Your task to perform on an android device: Who is the prime minister of the United Kingdom? Image 0: 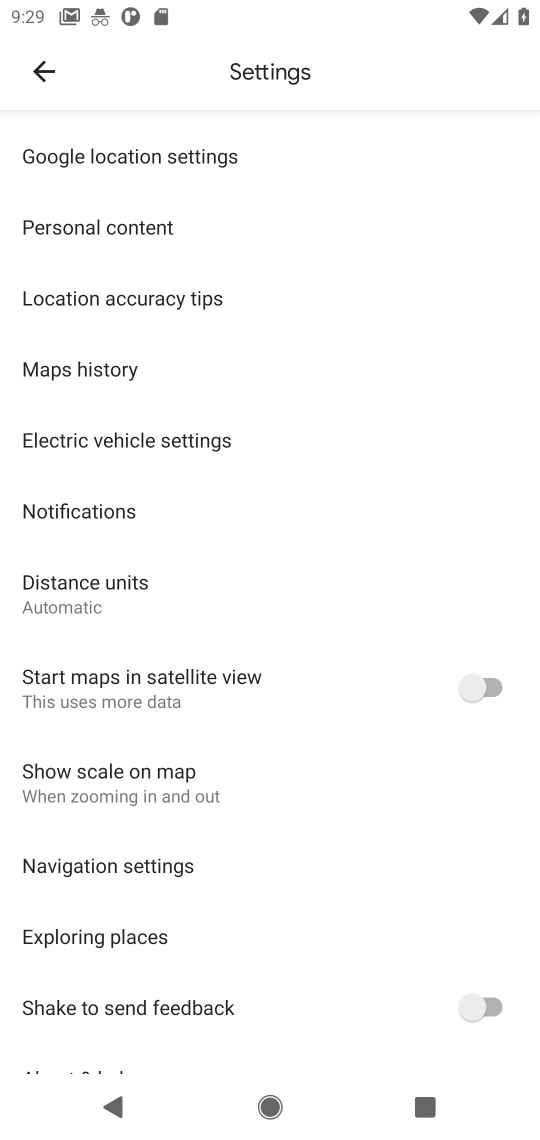
Step 0: press home button
Your task to perform on an android device: Who is the prime minister of the United Kingdom? Image 1: 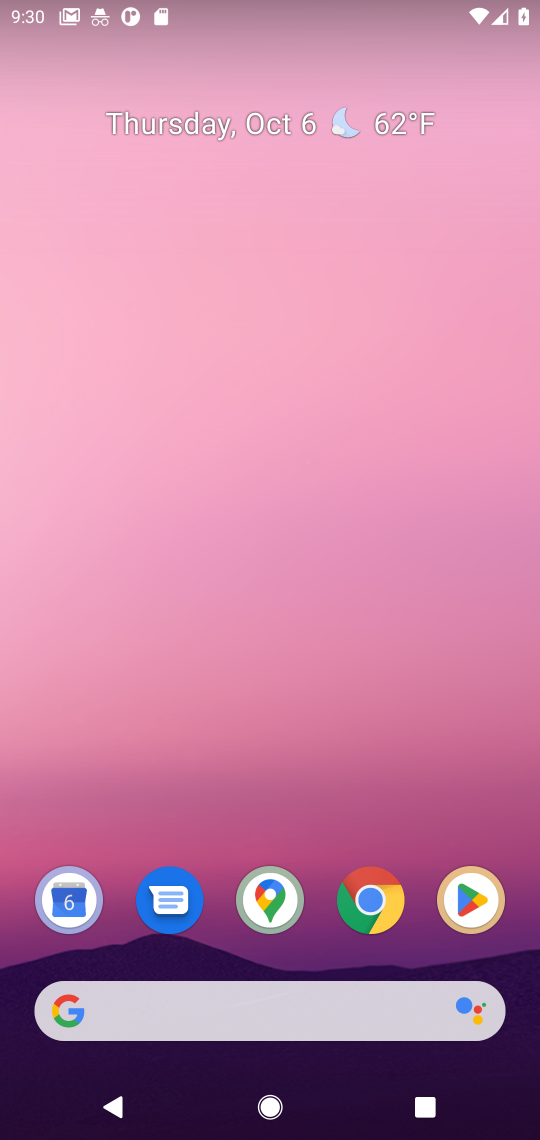
Step 1: click (294, 1007)
Your task to perform on an android device: Who is the prime minister of the United Kingdom? Image 2: 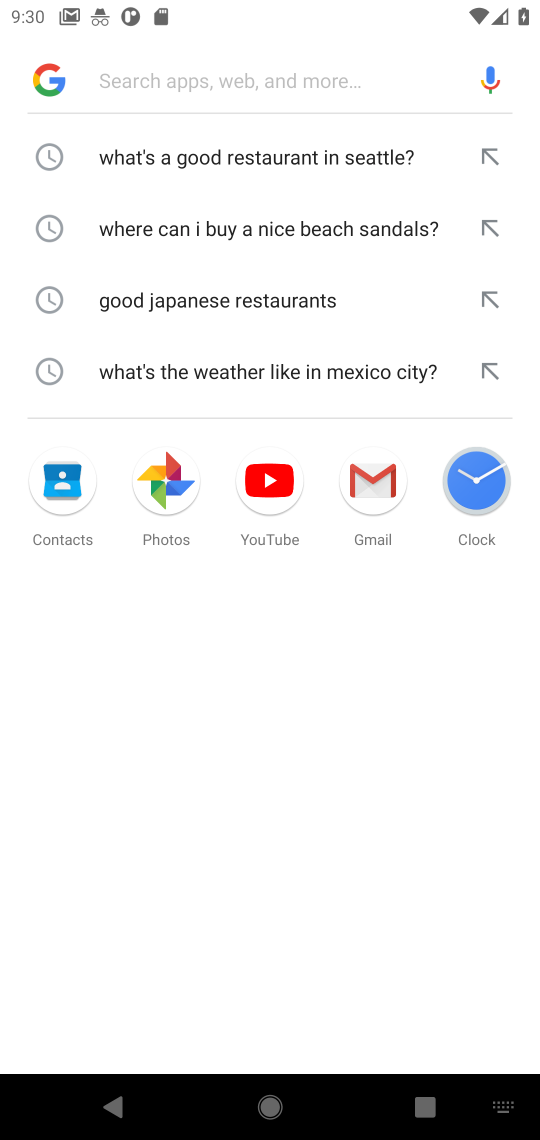
Step 2: type "Who is the prime minister of the United Kingdom?"
Your task to perform on an android device: Who is the prime minister of the United Kingdom? Image 3: 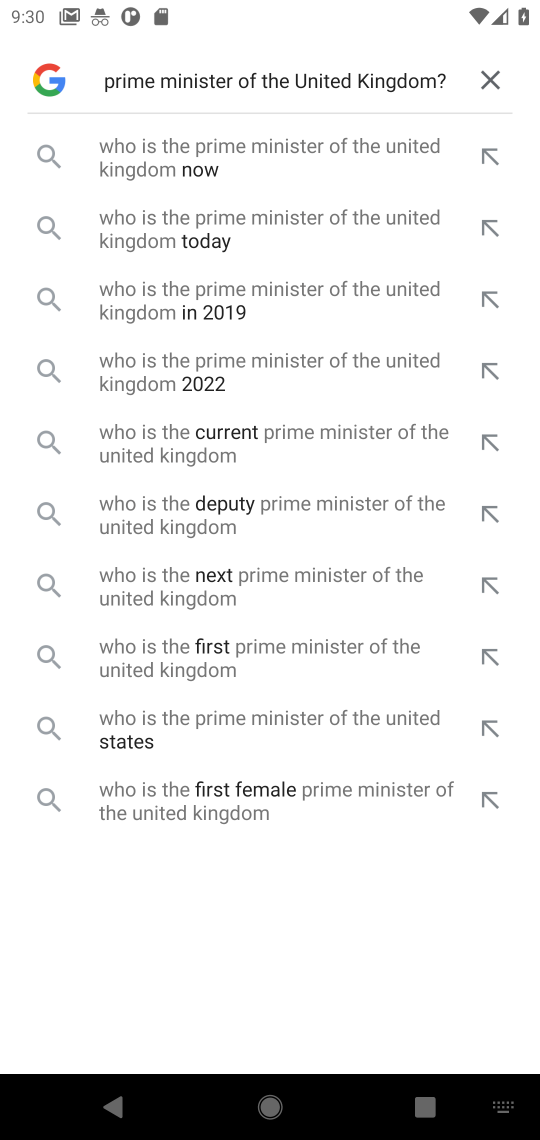
Step 3: press enter
Your task to perform on an android device: Who is the prime minister of the United Kingdom? Image 4: 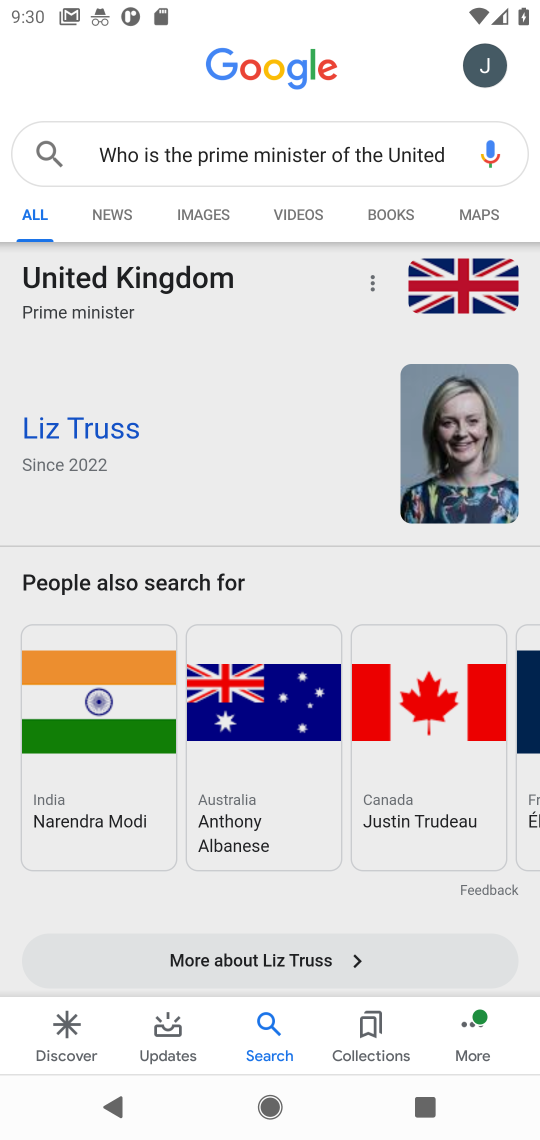
Step 4: task complete